Your task to perform on an android device: Open network settings Image 0: 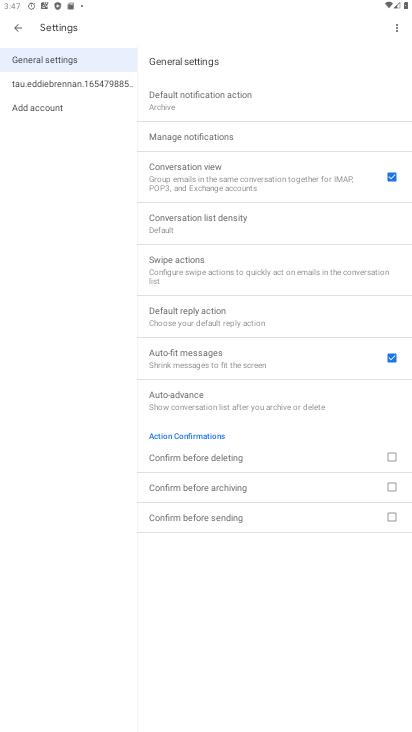
Step 0: press home button
Your task to perform on an android device: Open network settings Image 1: 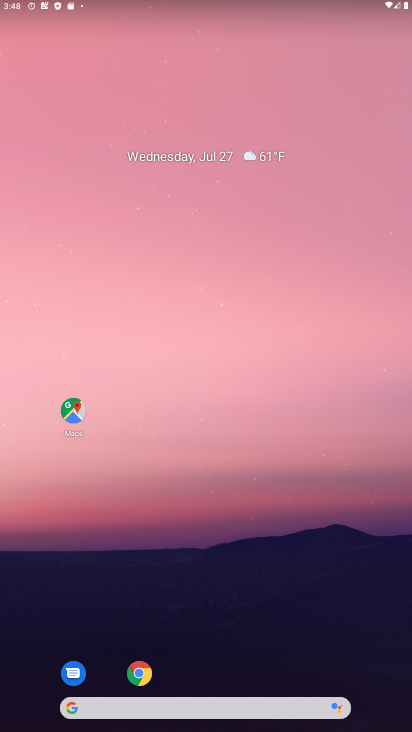
Step 1: drag from (38, 701) to (352, 18)
Your task to perform on an android device: Open network settings Image 2: 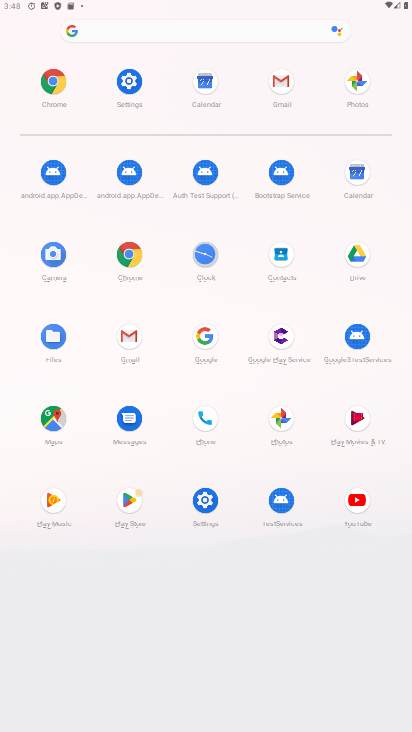
Step 2: click (190, 503)
Your task to perform on an android device: Open network settings Image 3: 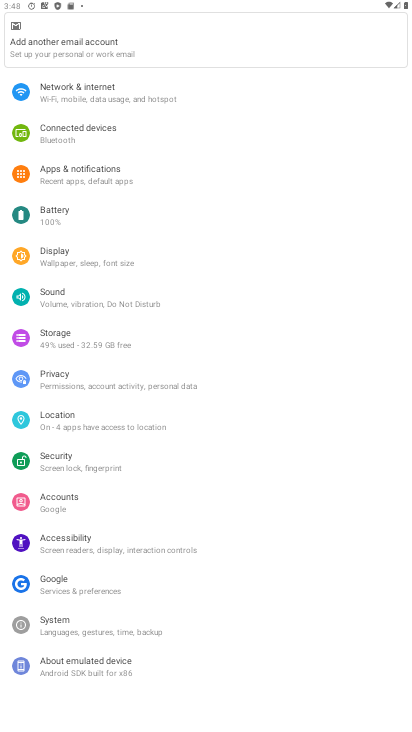
Step 3: click (71, 102)
Your task to perform on an android device: Open network settings Image 4: 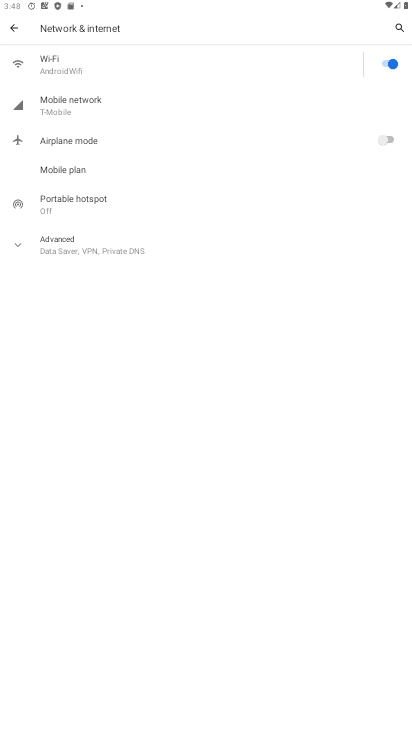
Step 4: task complete